Your task to perform on an android device: Go to calendar. Show me events next week Image 0: 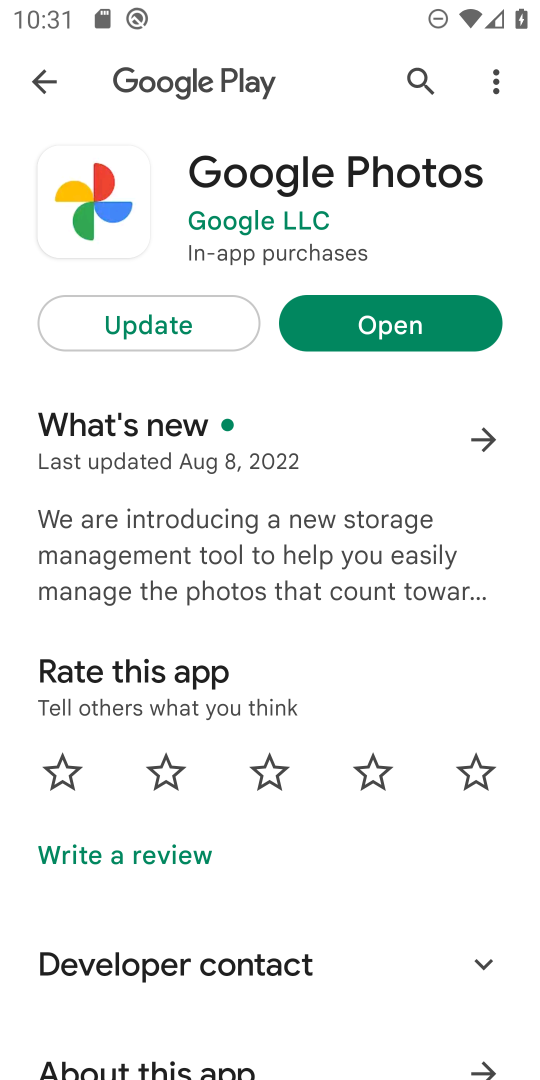
Step 0: press home button
Your task to perform on an android device: Go to calendar. Show me events next week Image 1: 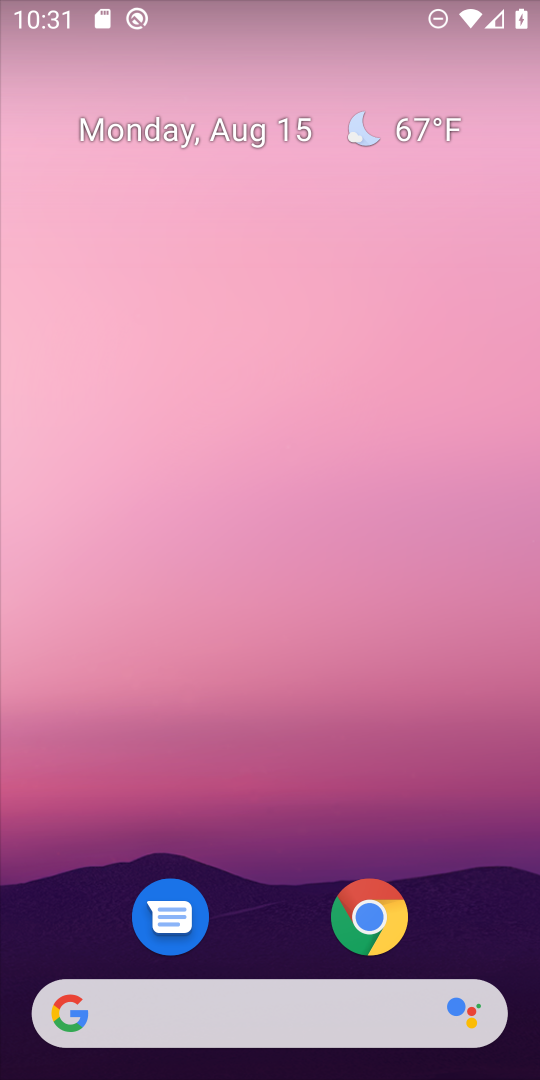
Step 1: drag from (286, 849) to (333, 0)
Your task to perform on an android device: Go to calendar. Show me events next week Image 2: 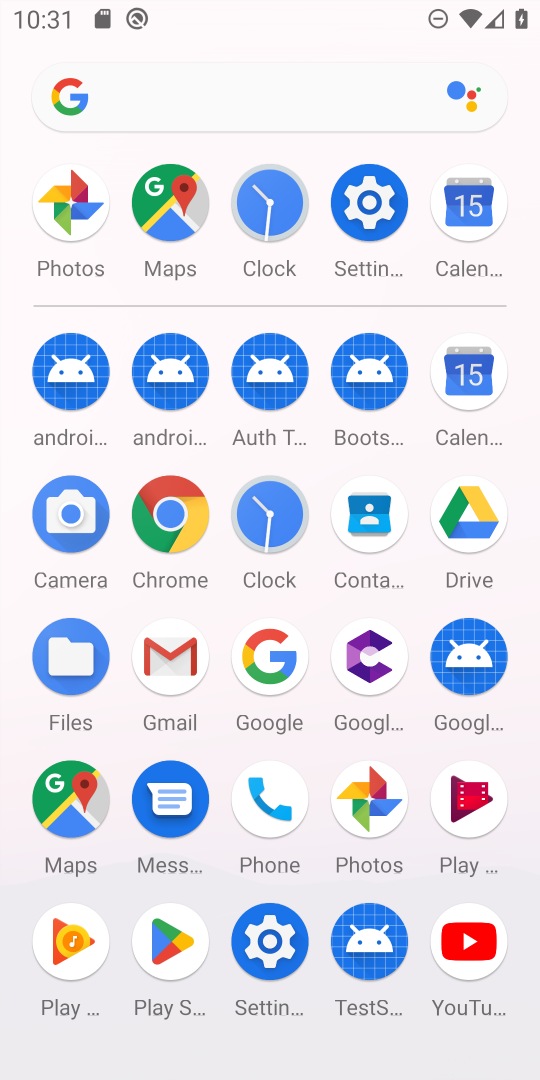
Step 2: click (479, 210)
Your task to perform on an android device: Go to calendar. Show me events next week Image 3: 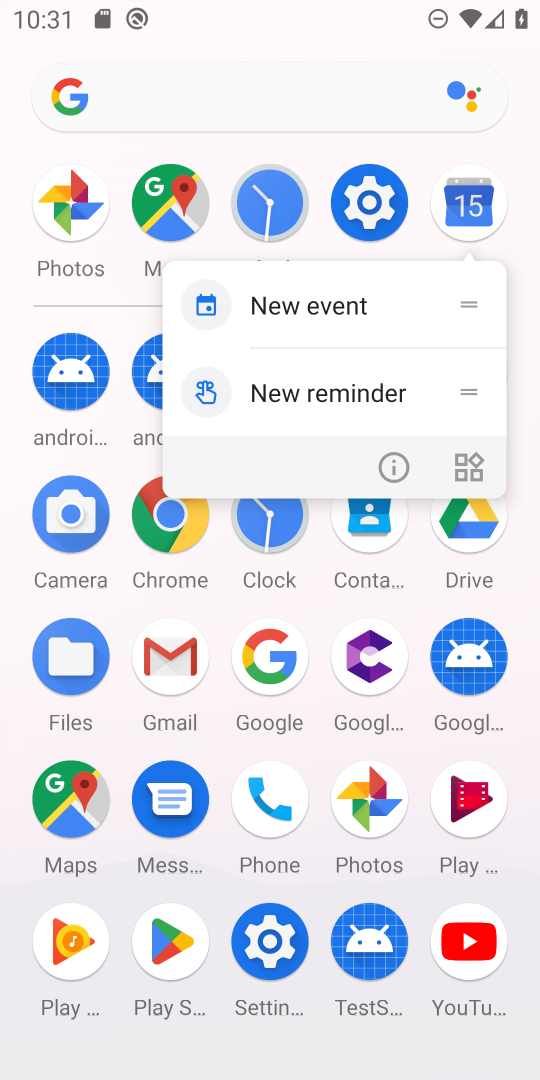
Step 3: click (462, 200)
Your task to perform on an android device: Go to calendar. Show me events next week Image 4: 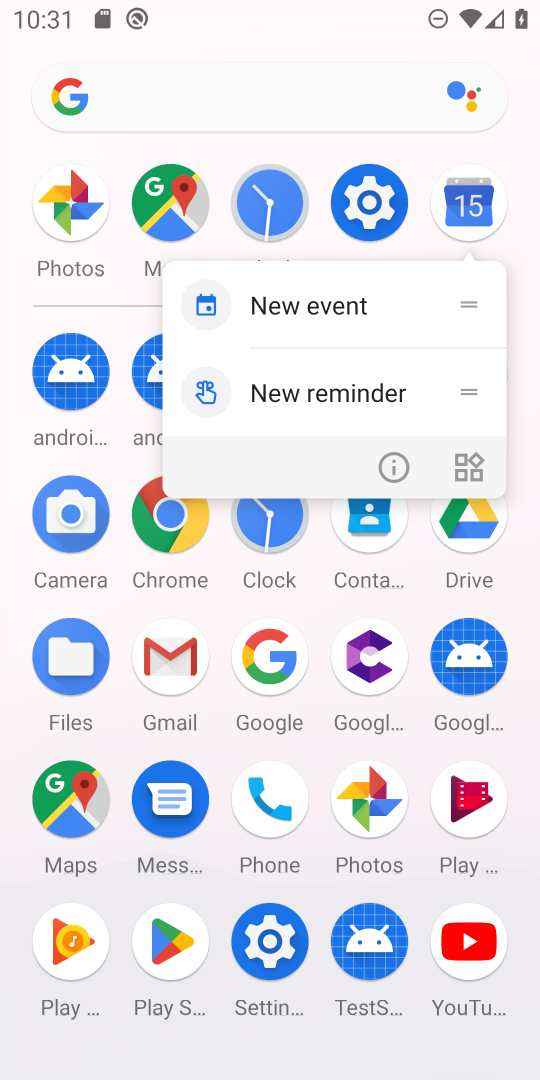
Step 4: click (462, 199)
Your task to perform on an android device: Go to calendar. Show me events next week Image 5: 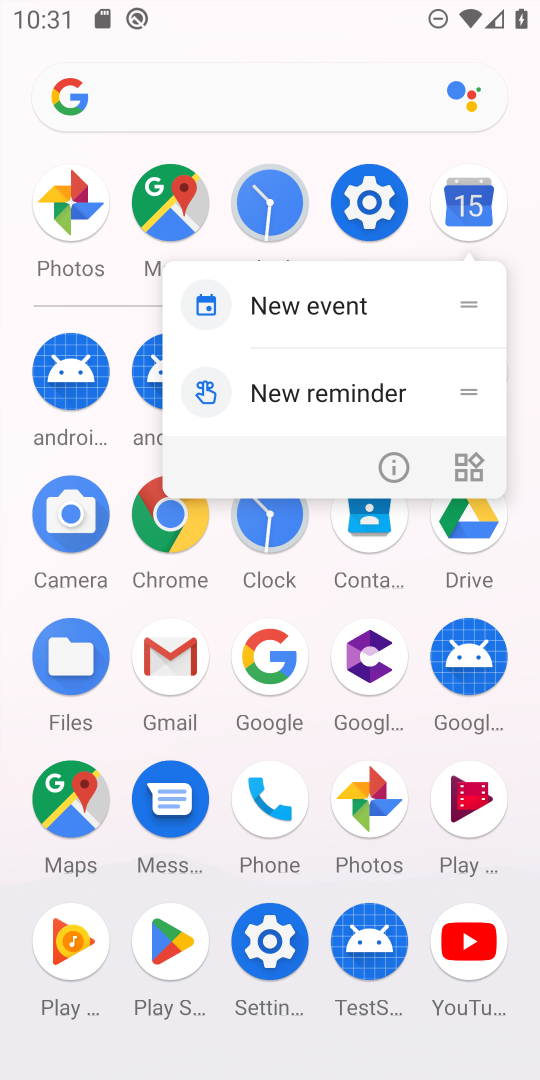
Step 5: click (462, 199)
Your task to perform on an android device: Go to calendar. Show me events next week Image 6: 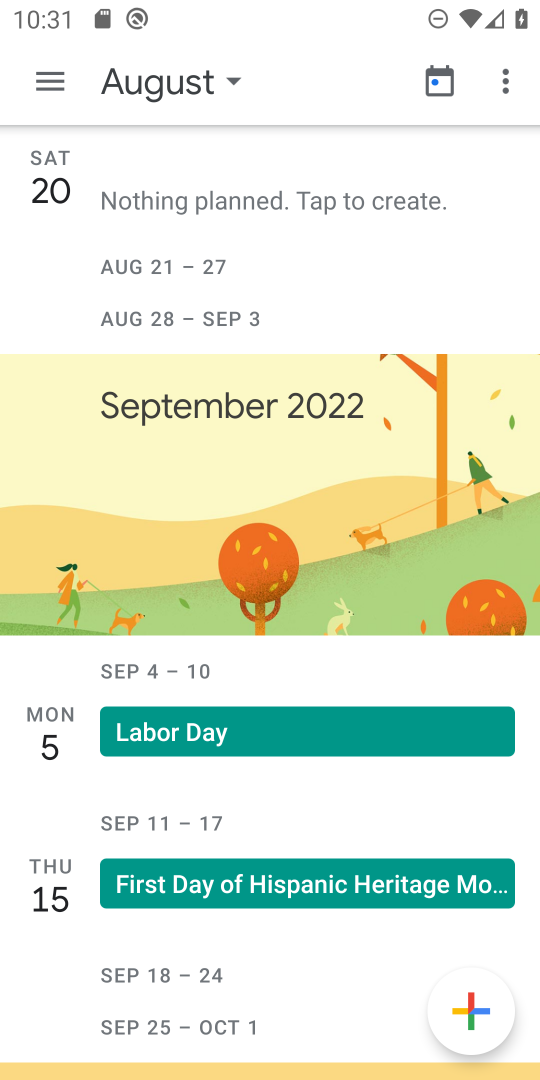
Step 6: click (49, 71)
Your task to perform on an android device: Go to calendar. Show me events next week Image 7: 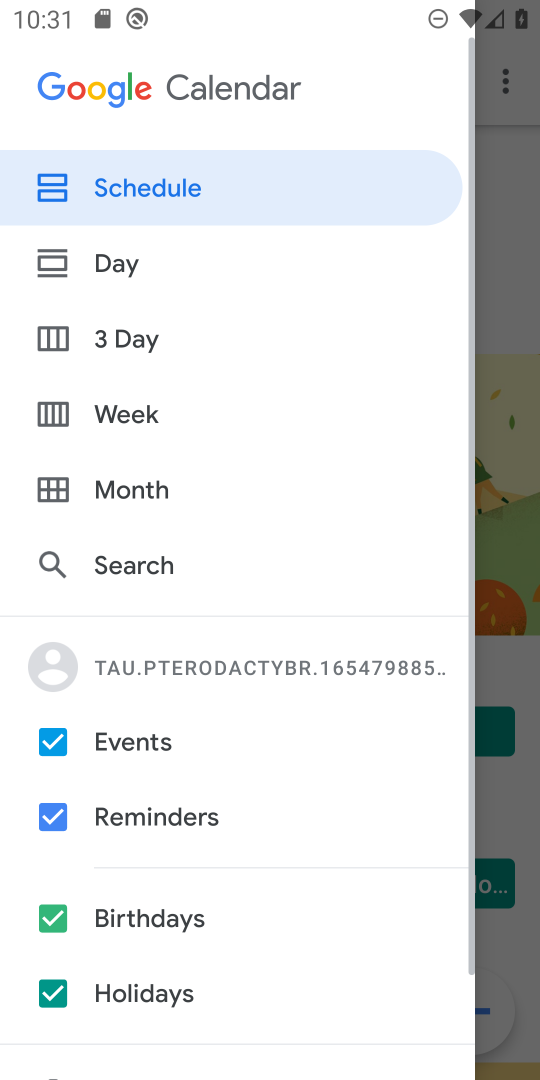
Step 7: click (62, 414)
Your task to perform on an android device: Go to calendar. Show me events next week Image 8: 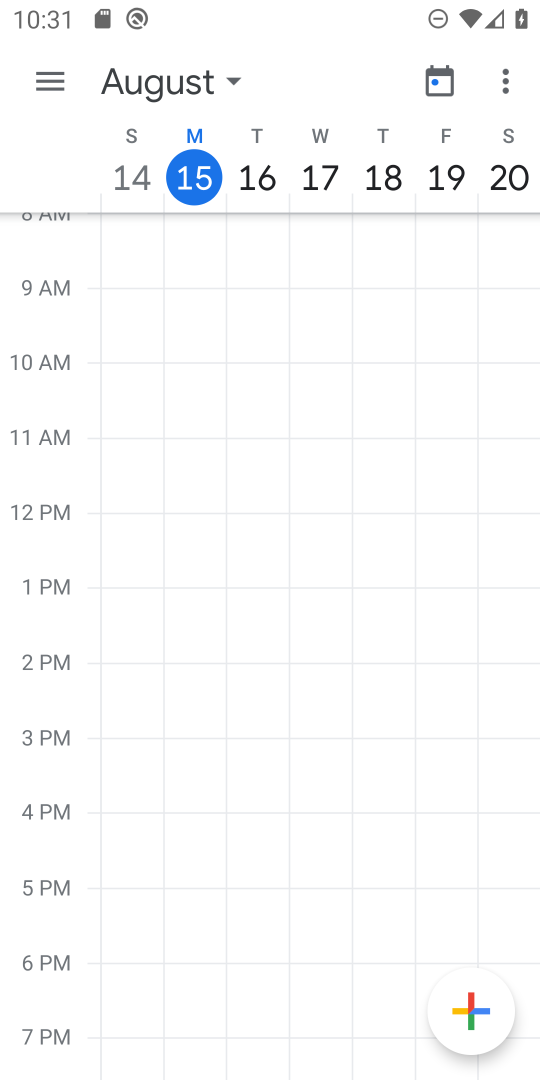
Step 8: task complete